Your task to perform on an android device: turn vacation reply on in the gmail app Image 0: 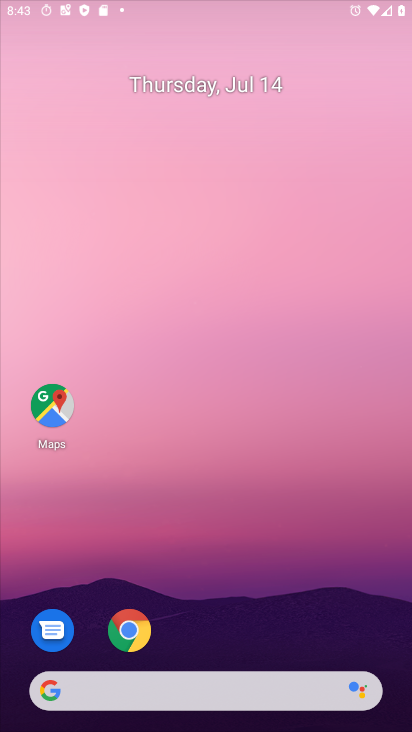
Step 0: drag from (166, 680) to (163, 118)
Your task to perform on an android device: turn vacation reply on in the gmail app Image 1: 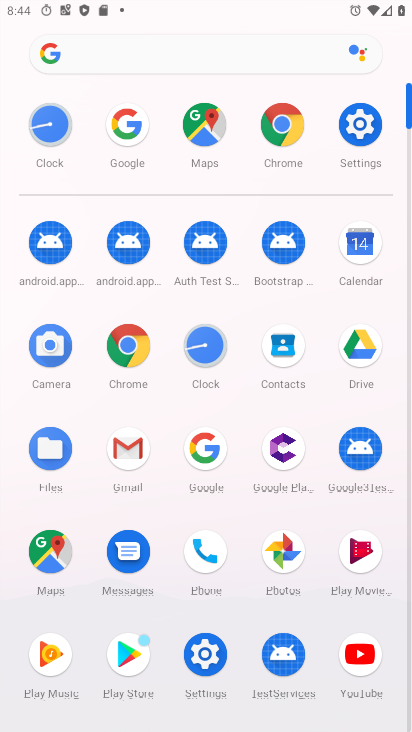
Step 1: click (131, 447)
Your task to perform on an android device: turn vacation reply on in the gmail app Image 2: 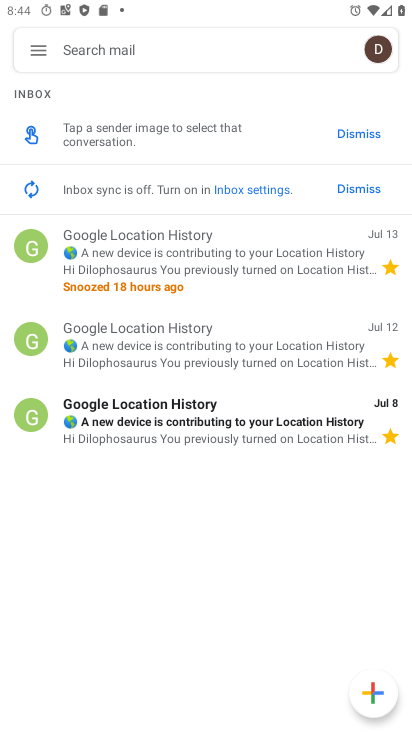
Step 2: click (38, 52)
Your task to perform on an android device: turn vacation reply on in the gmail app Image 3: 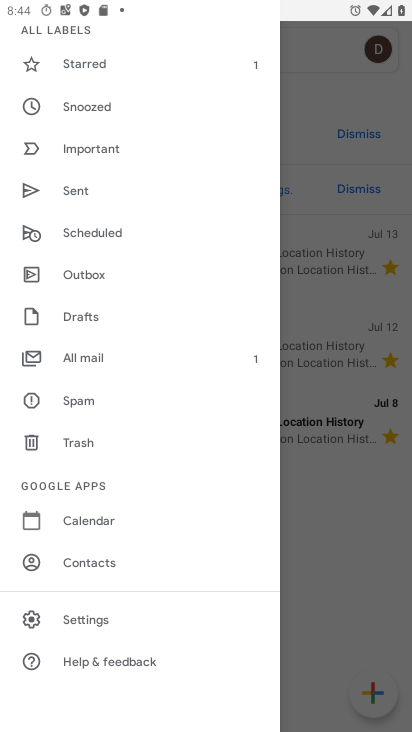
Step 3: click (92, 618)
Your task to perform on an android device: turn vacation reply on in the gmail app Image 4: 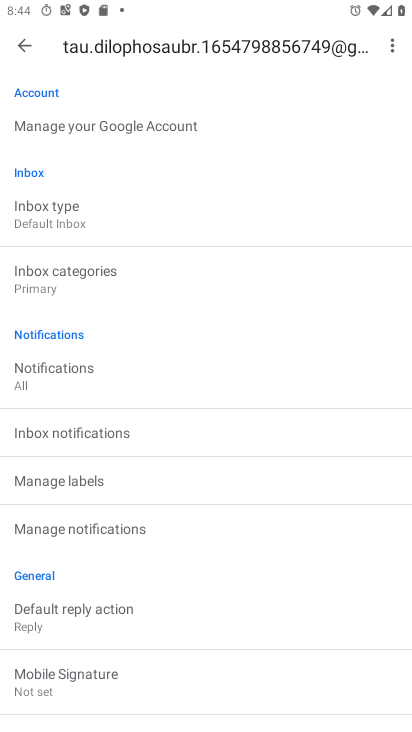
Step 4: drag from (124, 651) to (138, 260)
Your task to perform on an android device: turn vacation reply on in the gmail app Image 5: 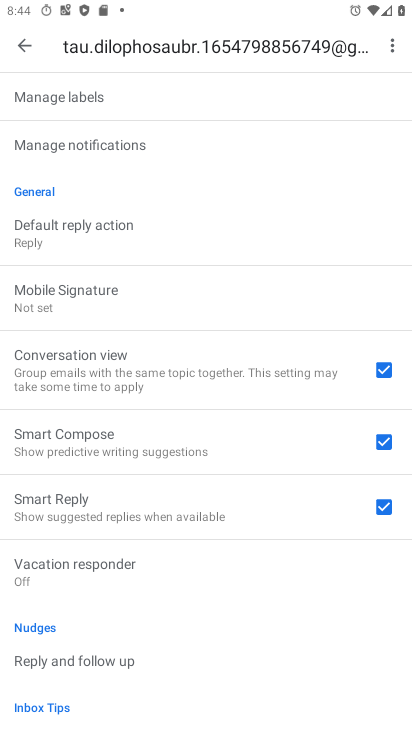
Step 5: click (44, 570)
Your task to perform on an android device: turn vacation reply on in the gmail app Image 6: 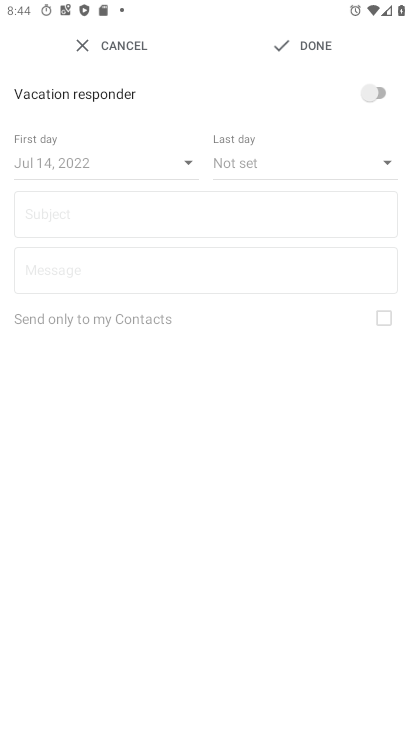
Step 6: click (385, 88)
Your task to perform on an android device: turn vacation reply on in the gmail app Image 7: 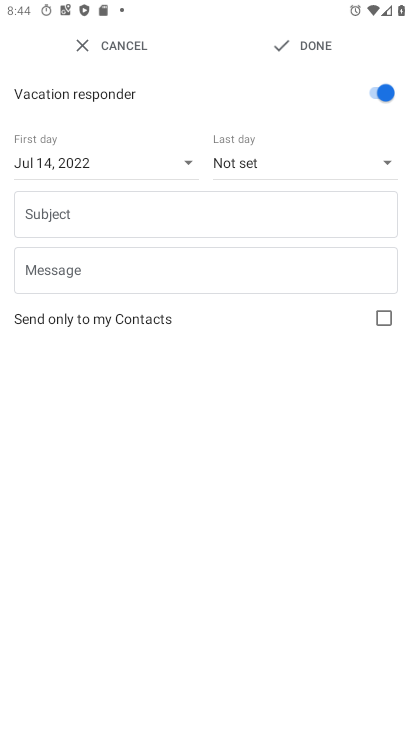
Step 7: task complete